Your task to perform on an android device: Search for hotels in Paris Image 0: 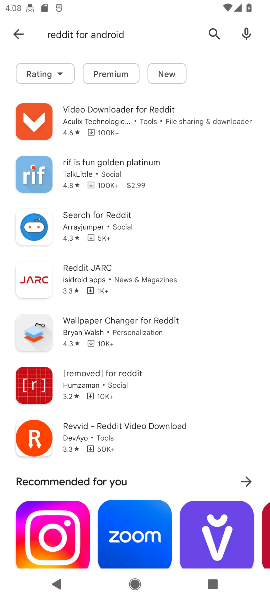
Step 0: press home button
Your task to perform on an android device: Search for hotels in Paris Image 1: 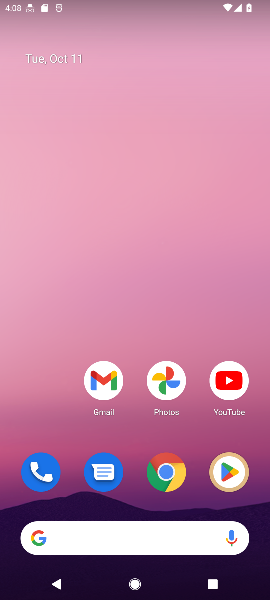
Step 1: click (154, 477)
Your task to perform on an android device: Search for hotels in Paris Image 2: 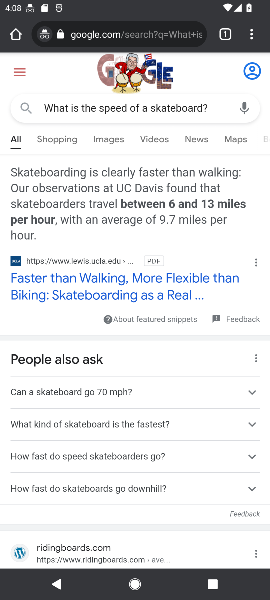
Step 2: click (136, 30)
Your task to perform on an android device: Search for hotels in Paris Image 3: 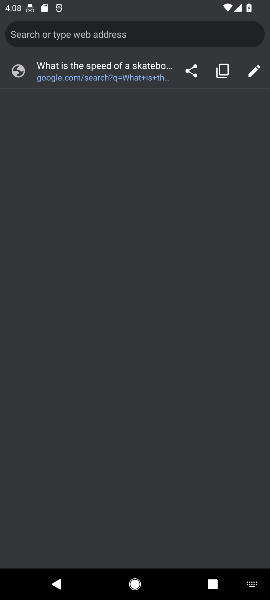
Step 3: type "What is the speed of a skateboard?"
Your task to perform on an android device: Search for hotels in Paris Image 4: 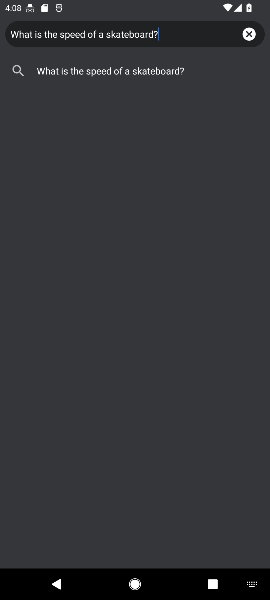
Step 4: click (248, 32)
Your task to perform on an android device: Search for hotels in Paris Image 5: 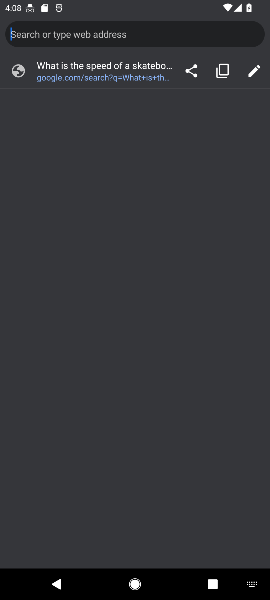
Step 5: type "Search for hotels in Paris"
Your task to perform on an android device: Search for hotels in Paris Image 6: 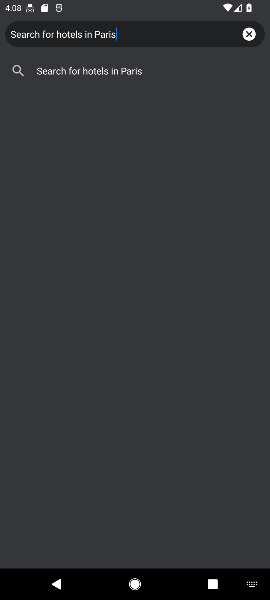
Step 6: click (150, 79)
Your task to perform on an android device: Search for hotels in Paris Image 7: 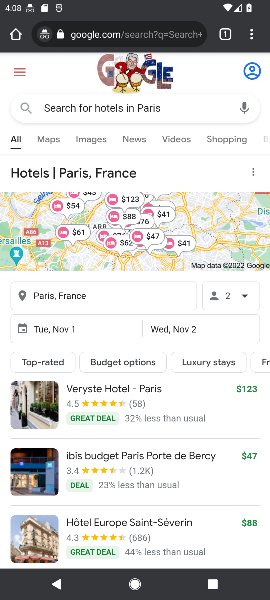
Step 7: task complete